Your task to perform on an android device: turn off priority inbox in the gmail app Image 0: 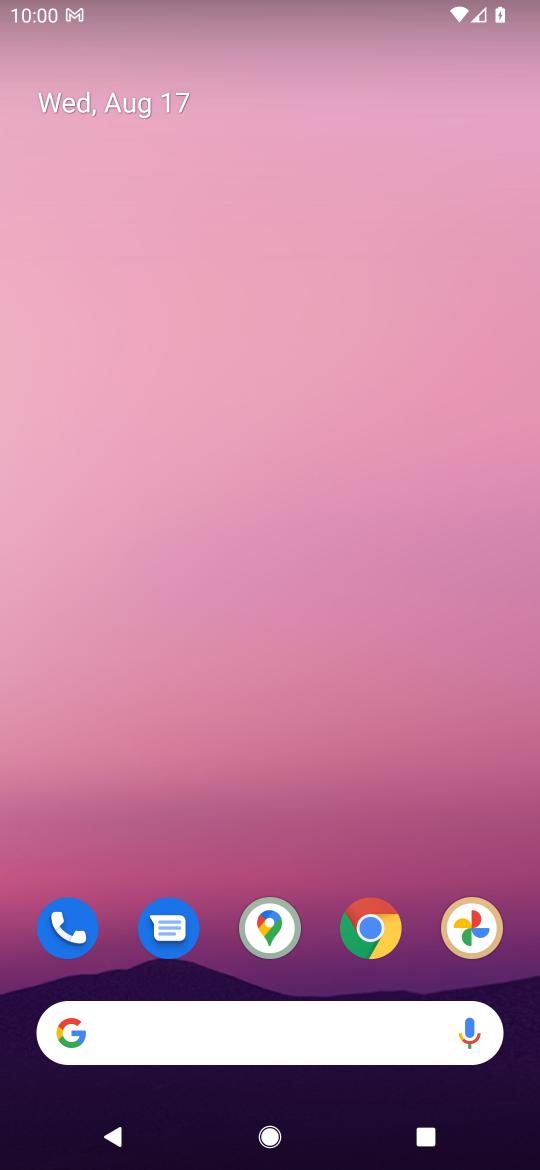
Step 0: drag from (402, 847) to (336, 380)
Your task to perform on an android device: turn off priority inbox in the gmail app Image 1: 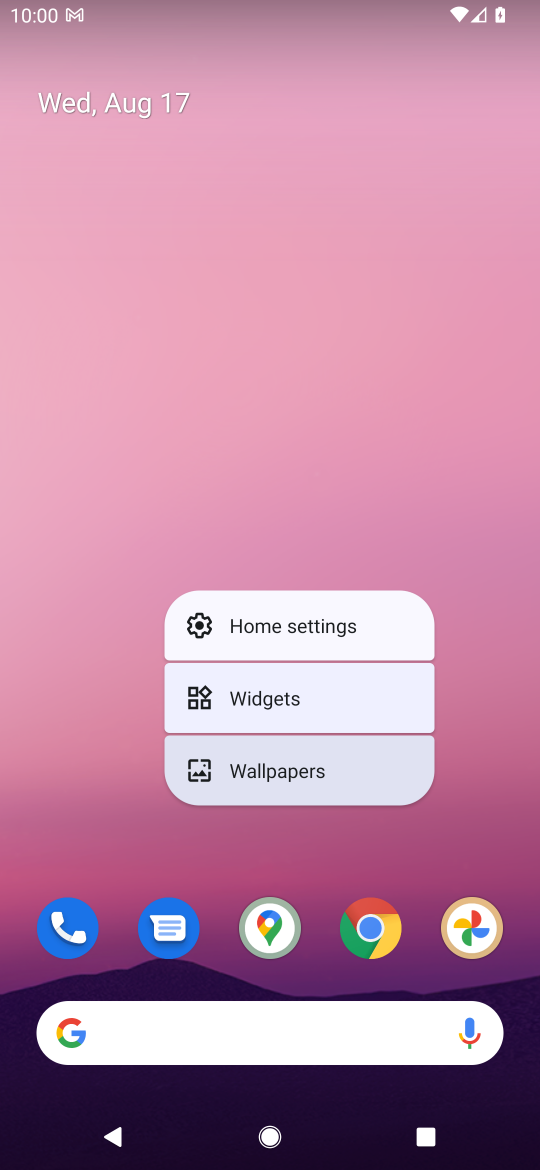
Step 1: click (417, 518)
Your task to perform on an android device: turn off priority inbox in the gmail app Image 2: 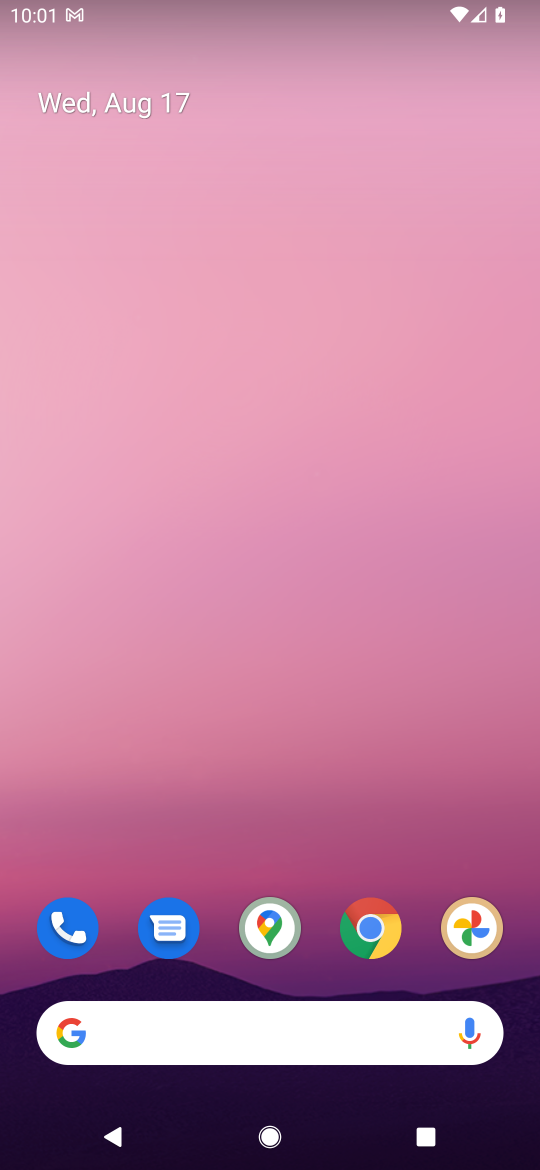
Step 2: drag from (380, 833) to (343, 191)
Your task to perform on an android device: turn off priority inbox in the gmail app Image 3: 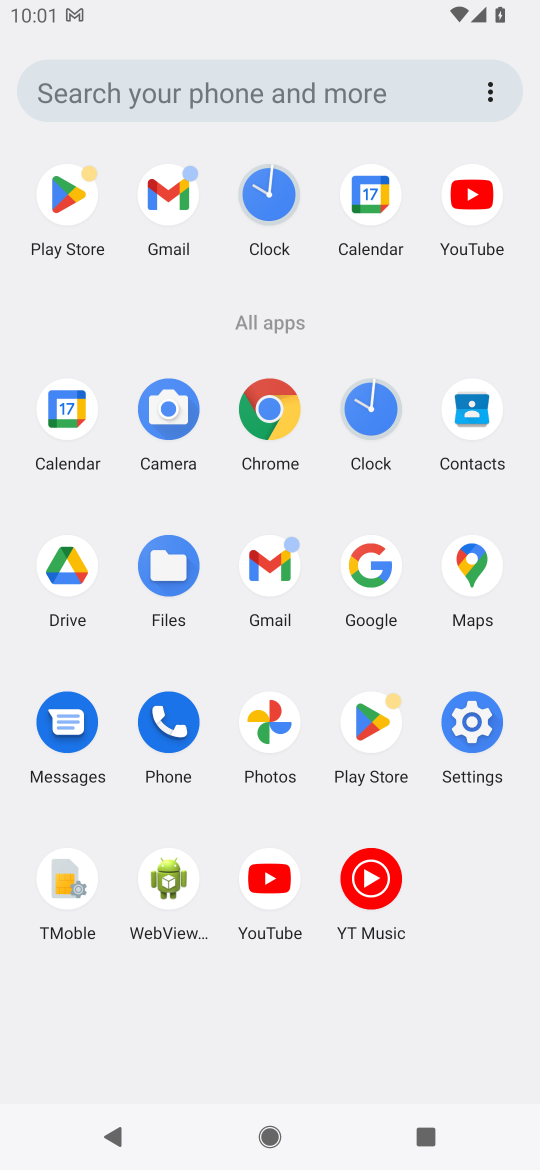
Step 3: click (253, 560)
Your task to perform on an android device: turn off priority inbox in the gmail app Image 4: 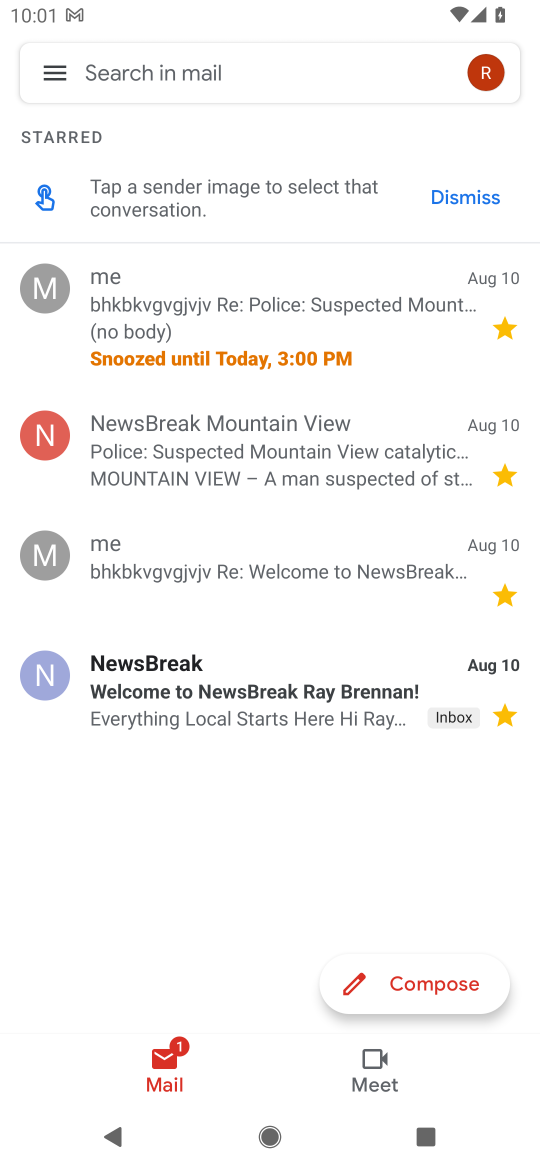
Step 4: click (56, 78)
Your task to perform on an android device: turn off priority inbox in the gmail app Image 5: 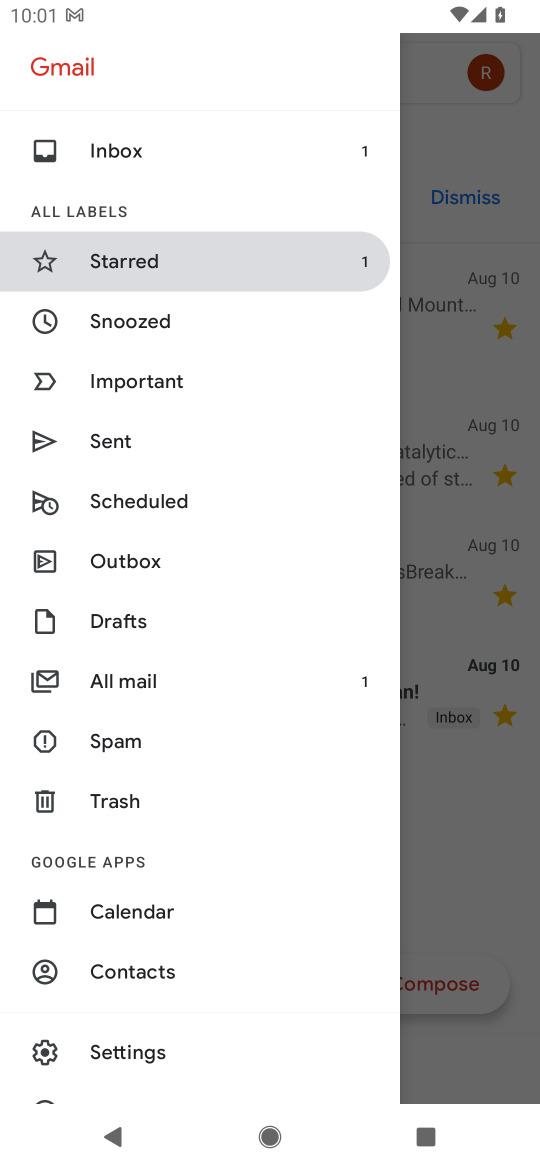
Step 5: click (140, 1047)
Your task to perform on an android device: turn off priority inbox in the gmail app Image 6: 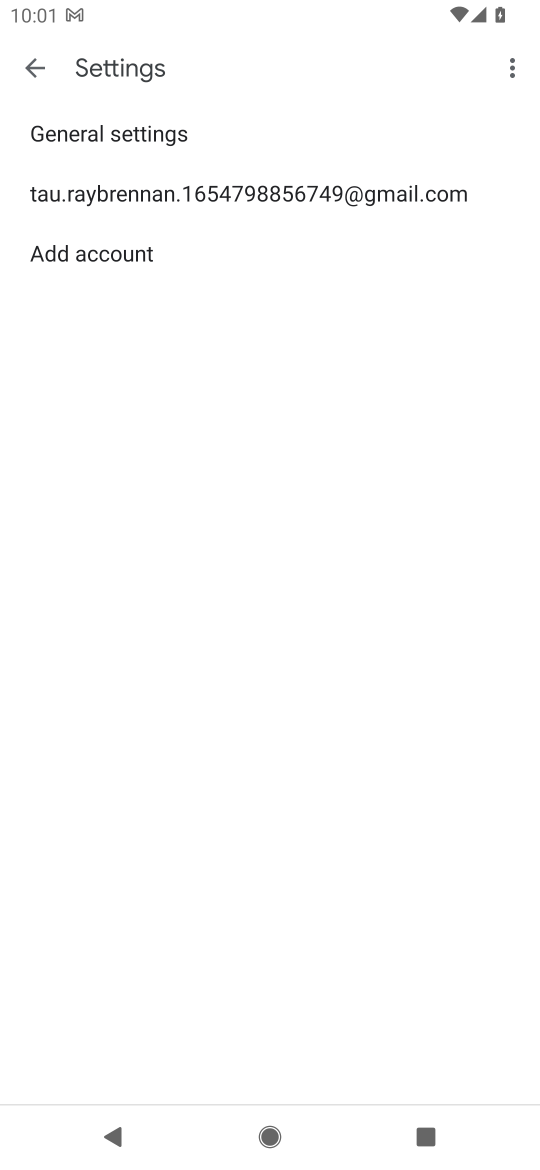
Step 6: click (214, 196)
Your task to perform on an android device: turn off priority inbox in the gmail app Image 7: 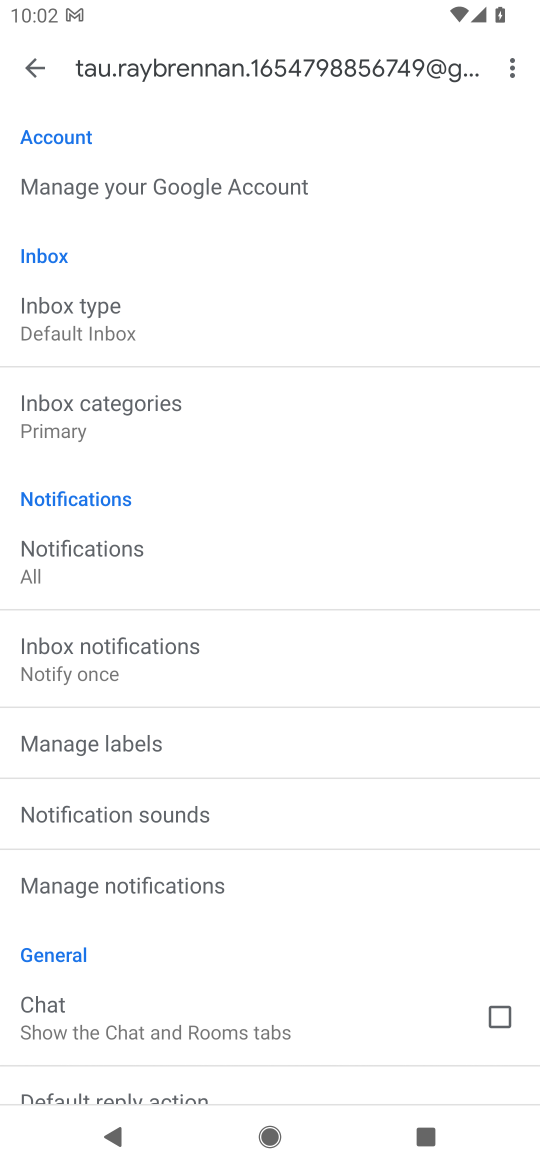
Step 7: click (147, 327)
Your task to perform on an android device: turn off priority inbox in the gmail app Image 8: 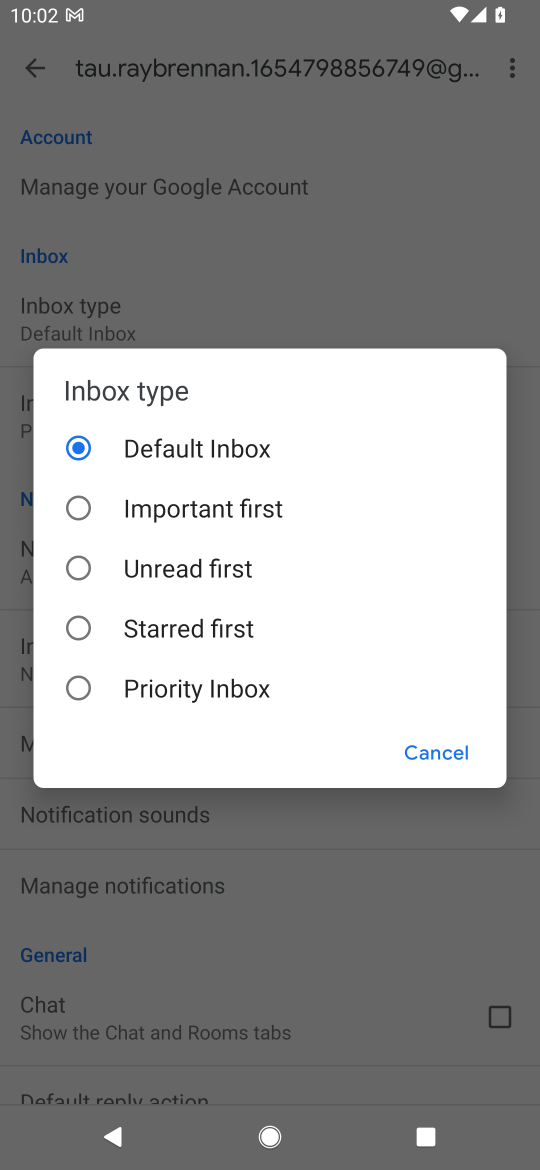
Step 8: task complete